Your task to perform on an android device: change notifications settings Image 0: 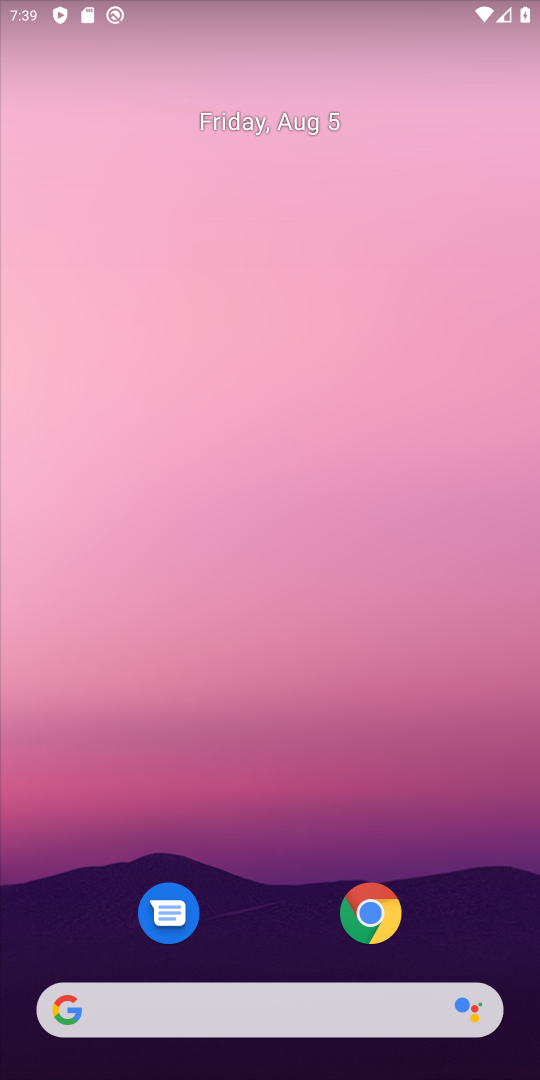
Step 0: drag from (263, 922) to (302, 373)
Your task to perform on an android device: change notifications settings Image 1: 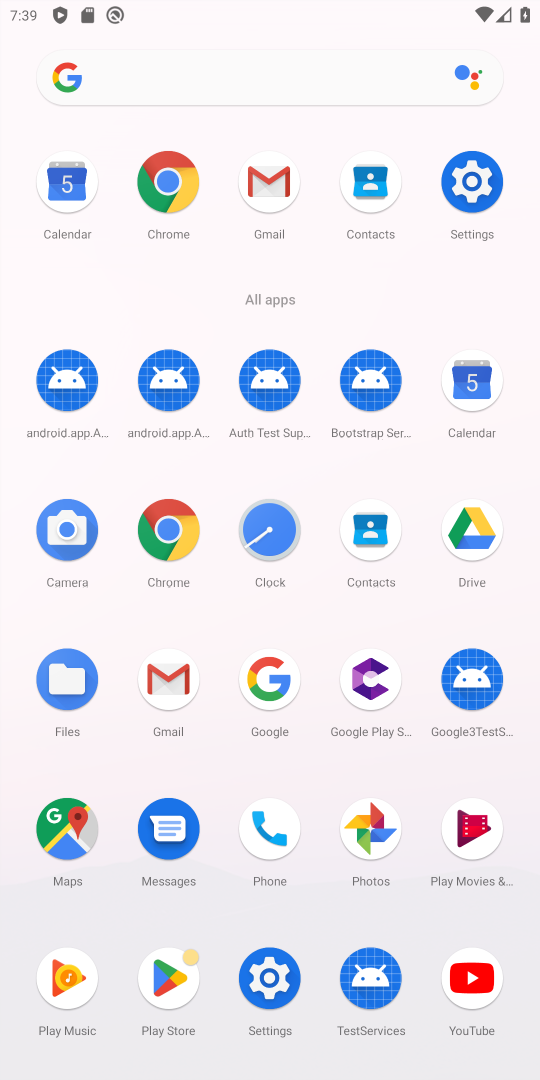
Step 1: click (471, 178)
Your task to perform on an android device: change notifications settings Image 2: 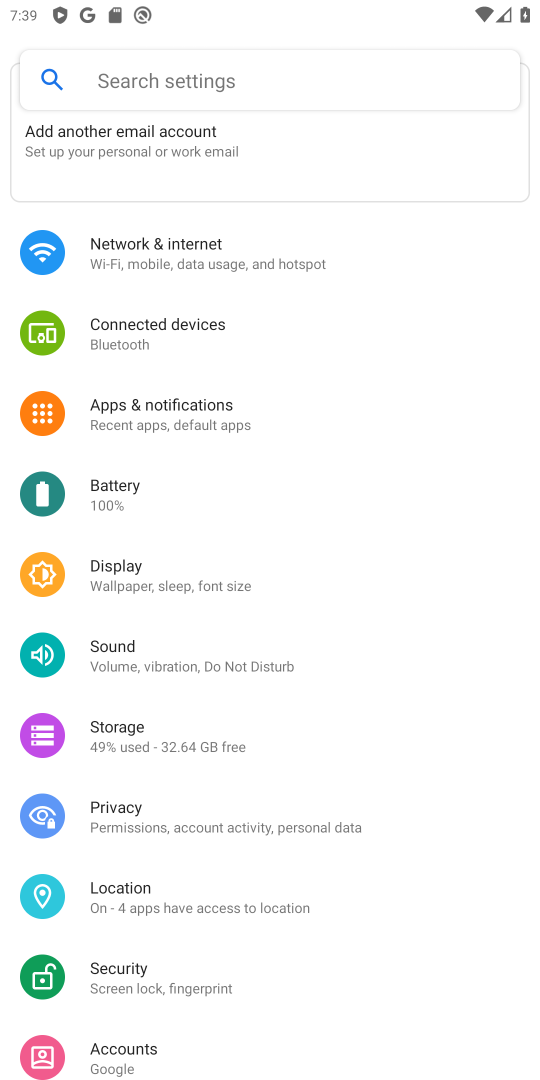
Step 2: drag from (381, 596) to (397, 510)
Your task to perform on an android device: change notifications settings Image 3: 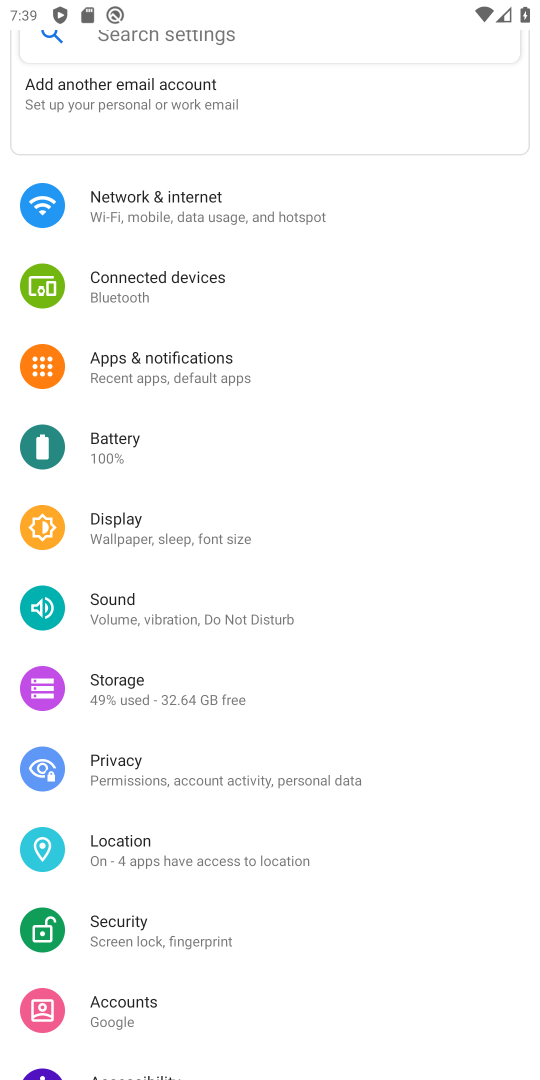
Step 3: drag from (438, 619) to (443, 535)
Your task to perform on an android device: change notifications settings Image 4: 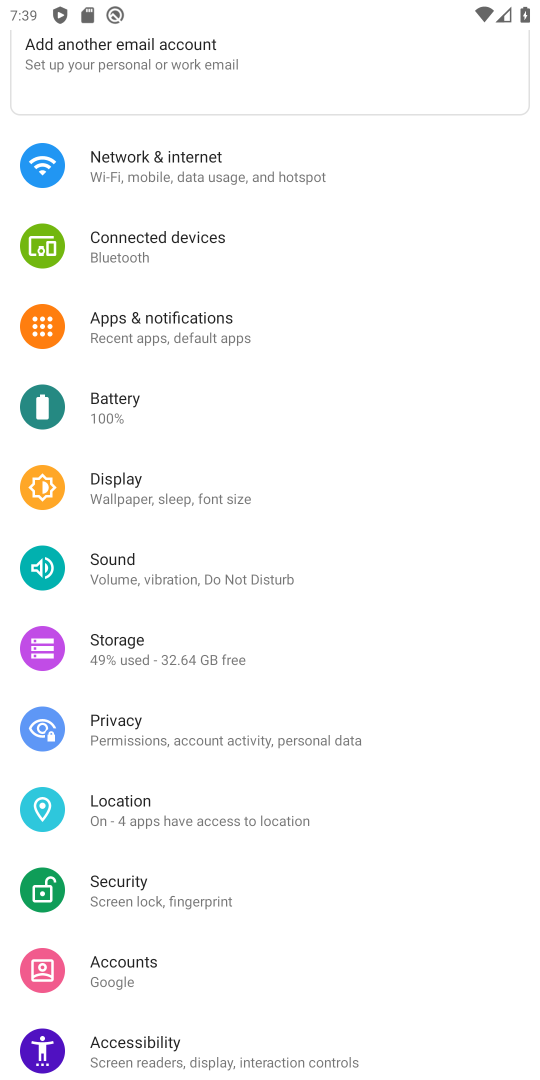
Step 4: drag from (440, 714) to (440, 512)
Your task to perform on an android device: change notifications settings Image 5: 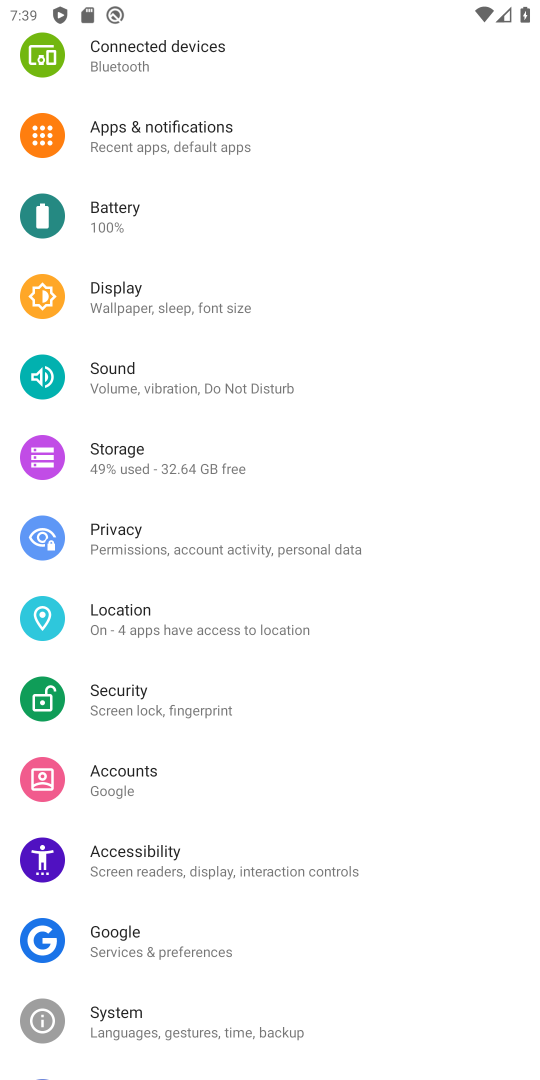
Step 5: drag from (425, 780) to (443, 613)
Your task to perform on an android device: change notifications settings Image 6: 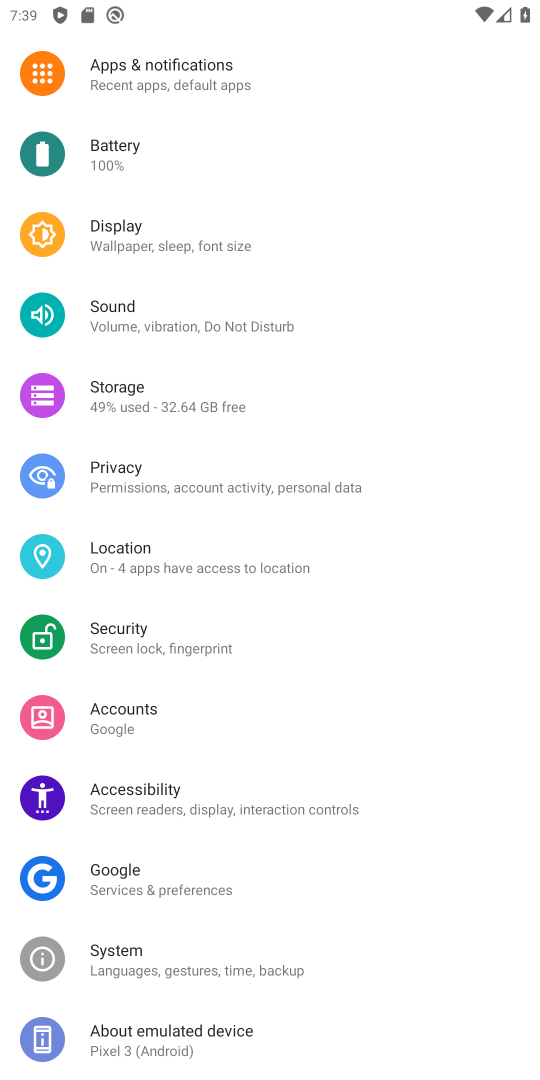
Step 6: drag from (418, 410) to (429, 529)
Your task to perform on an android device: change notifications settings Image 7: 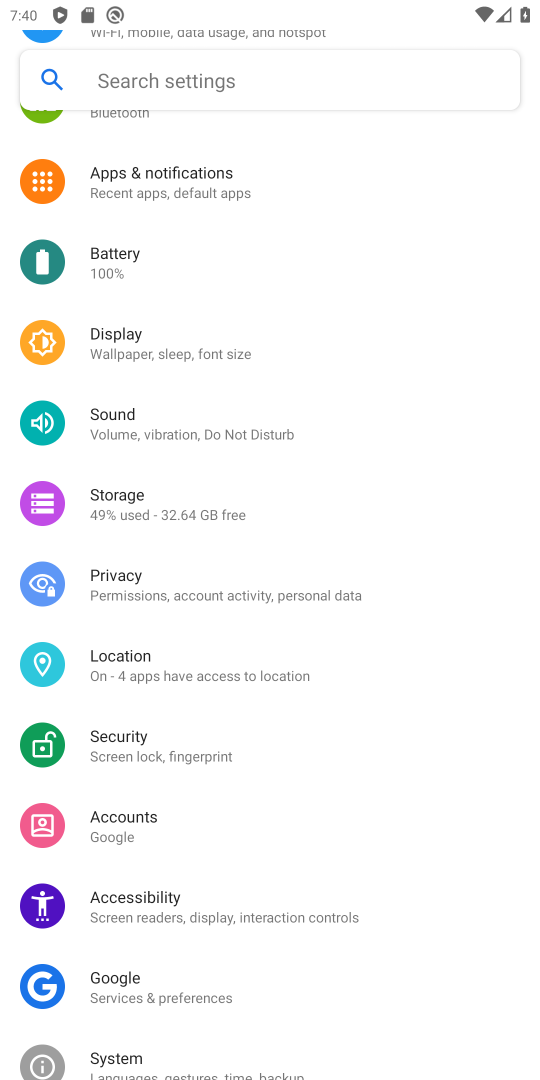
Step 7: drag from (435, 282) to (451, 488)
Your task to perform on an android device: change notifications settings Image 8: 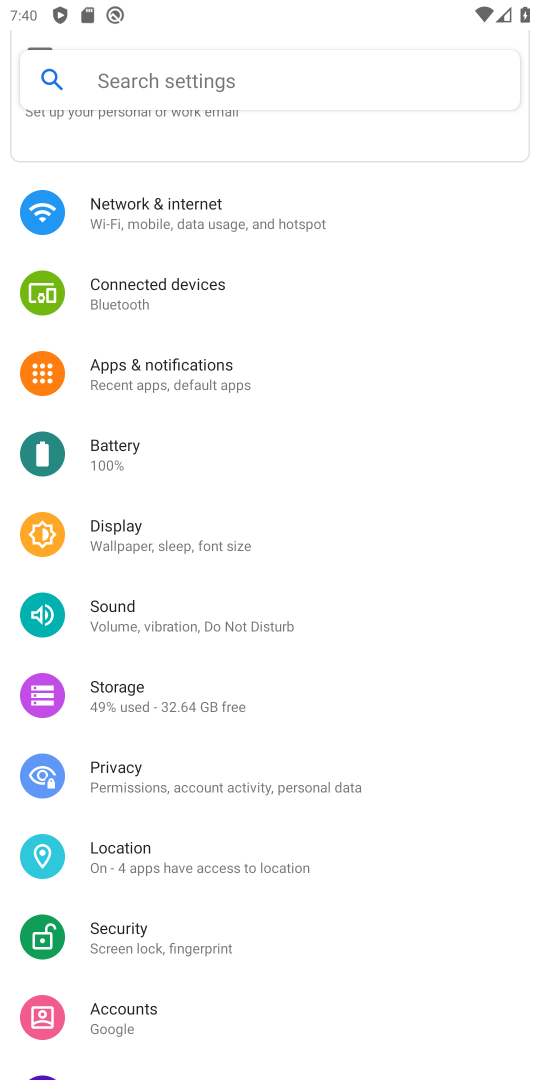
Step 8: drag from (436, 209) to (444, 437)
Your task to perform on an android device: change notifications settings Image 9: 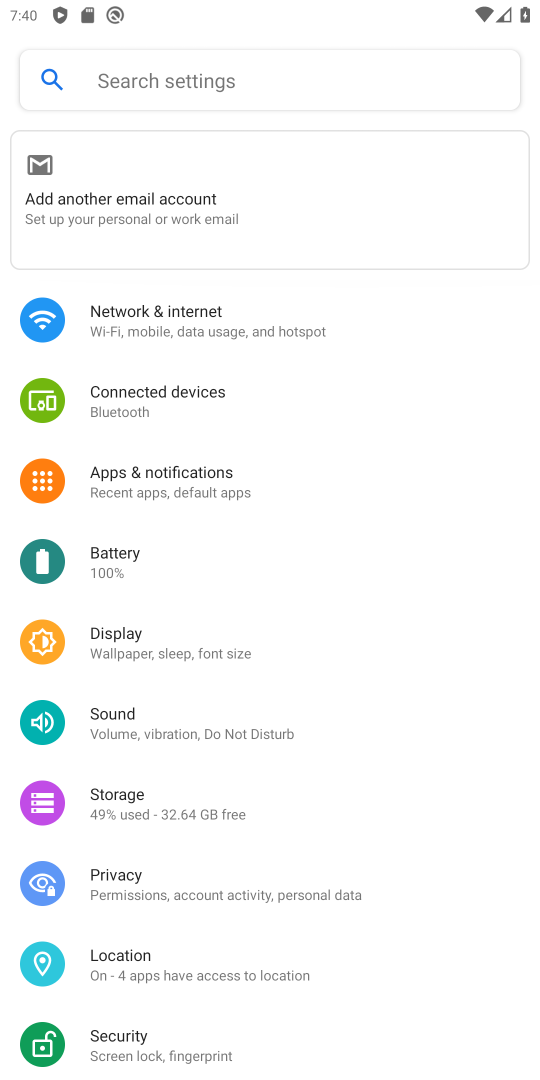
Step 9: drag from (401, 265) to (424, 523)
Your task to perform on an android device: change notifications settings Image 10: 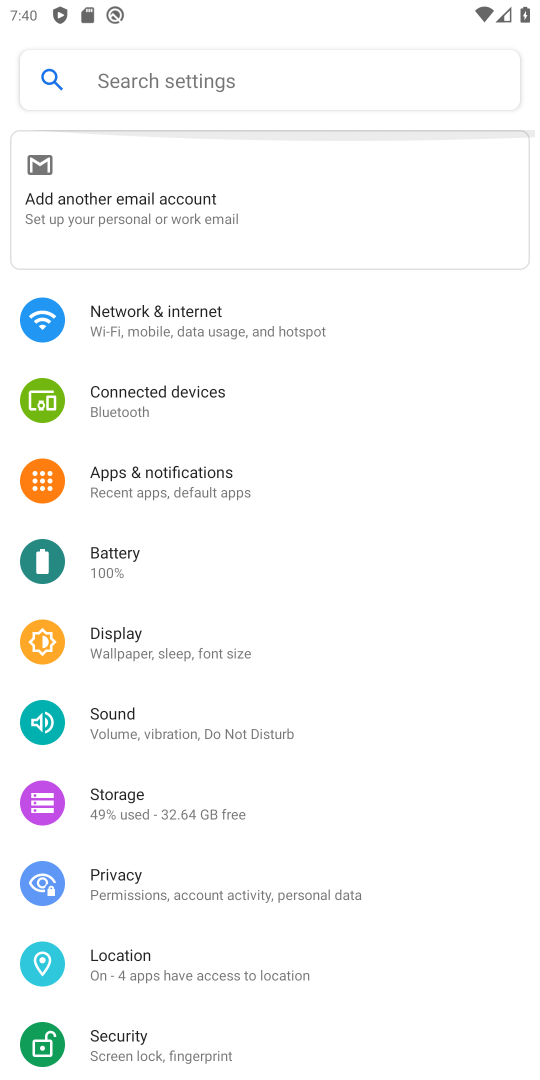
Step 10: click (262, 478)
Your task to perform on an android device: change notifications settings Image 11: 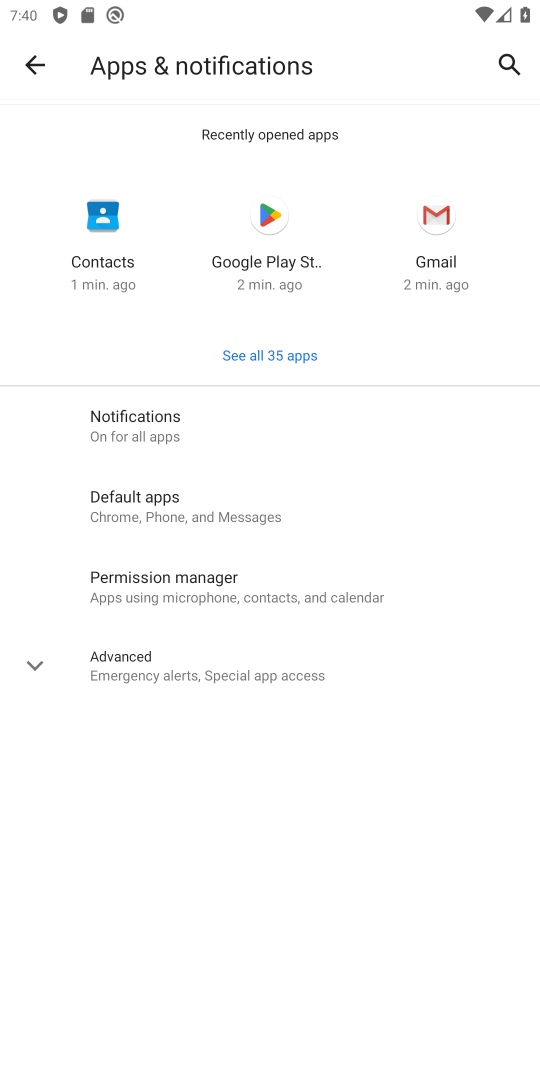
Step 11: click (155, 425)
Your task to perform on an android device: change notifications settings Image 12: 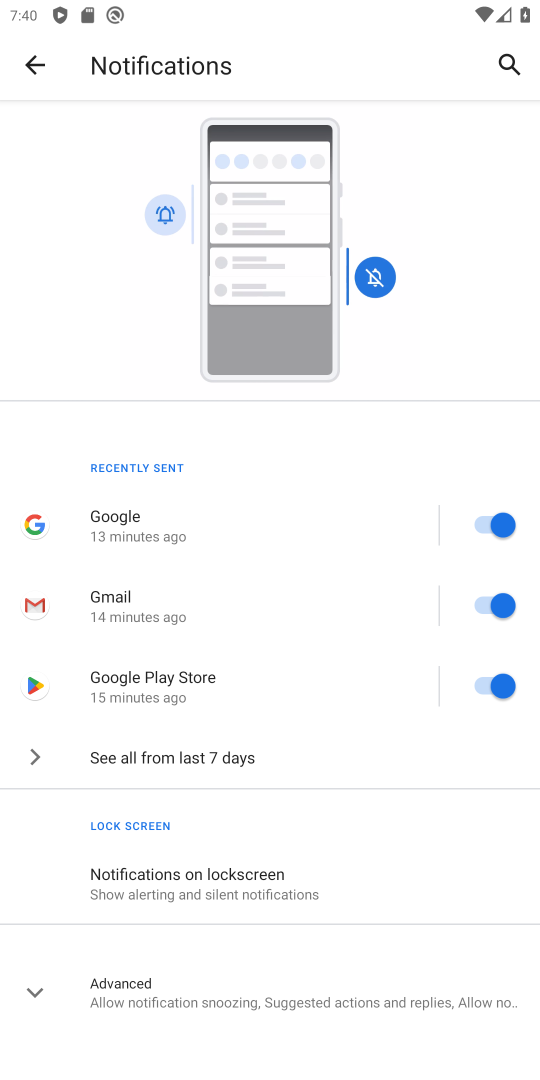
Step 12: task complete